Your task to perform on an android device: install app "Clock" Image 0: 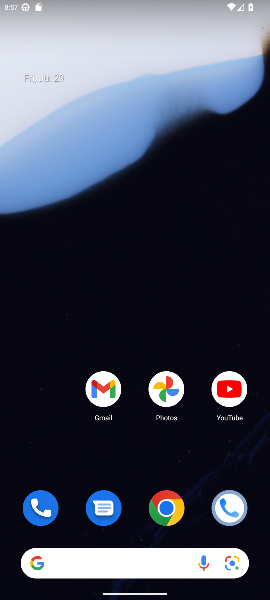
Step 0: drag from (178, 548) to (122, 30)
Your task to perform on an android device: install app "Clock" Image 1: 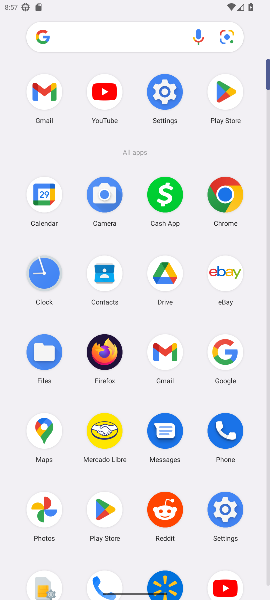
Step 1: click (47, 272)
Your task to perform on an android device: install app "Clock" Image 2: 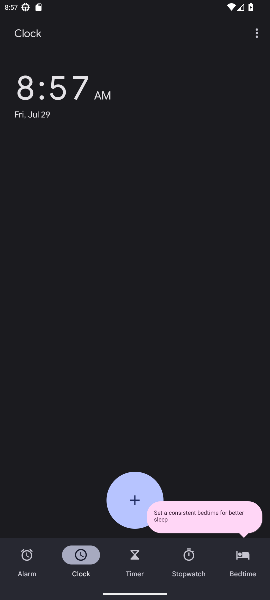
Step 2: press home button
Your task to perform on an android device: install app "Clock" Image 3: 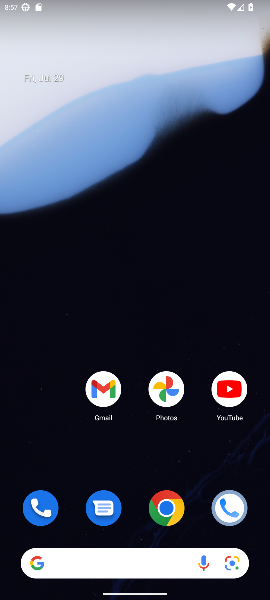
Step 3: drag from (150, 463) to (230, 8)
Your task to perform on an android device: install app "Clock" Image 4: 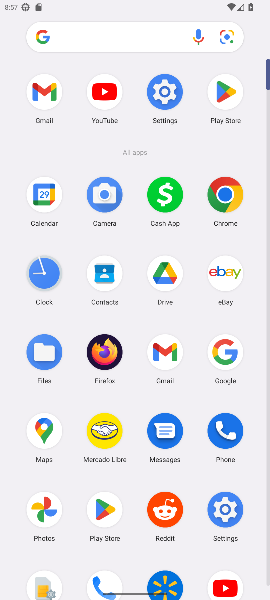
Step 4: click (231, 79)
Your task to perform on an android device: install app "Clock" Image 5: 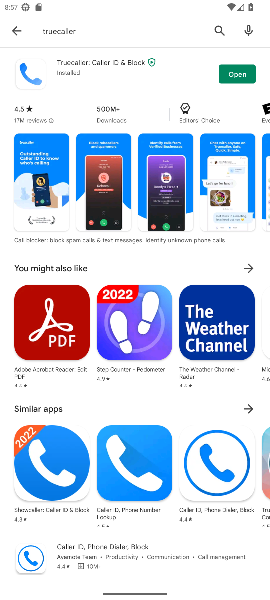
Step 5: click (217, 25)
Your task to perform on an android device: install app "Clock" Image 6: 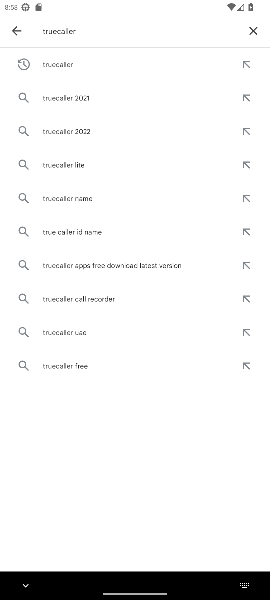
Step 6: click (252, 28)
Your task to perform on an android device: install app "Clock" Image 7: 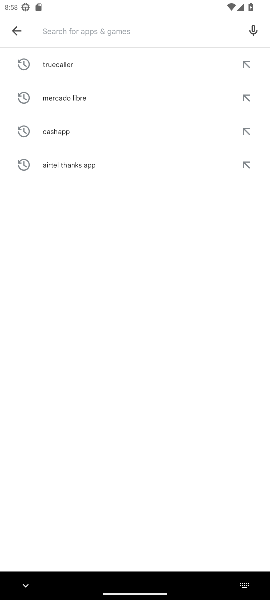
Step 7: type "clock"
Your task to perform on an android device: install app "Clock" Image 8: 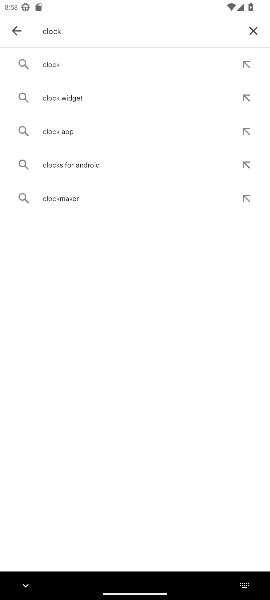
Step 8: click (40, 61)
Your task to perform on an android device: install app "Clock" Image 9: 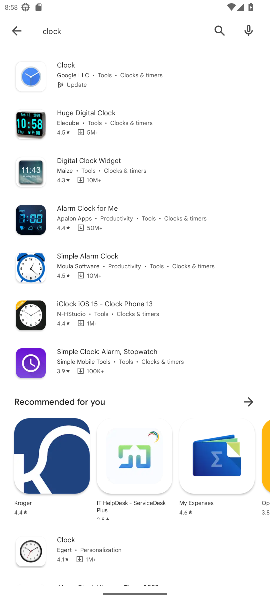
Step 9: click (66, 72)
Your task to perform on an android device: install app "Clock" Image 10: 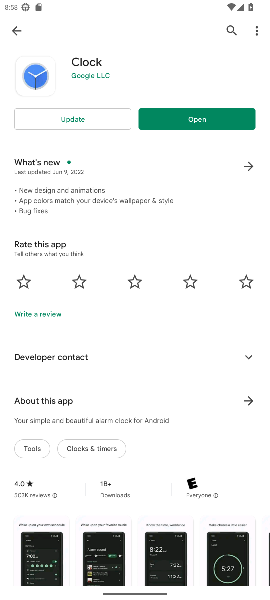
Step 10: task complete